Your task to perform on an android device: check android version Image 0: 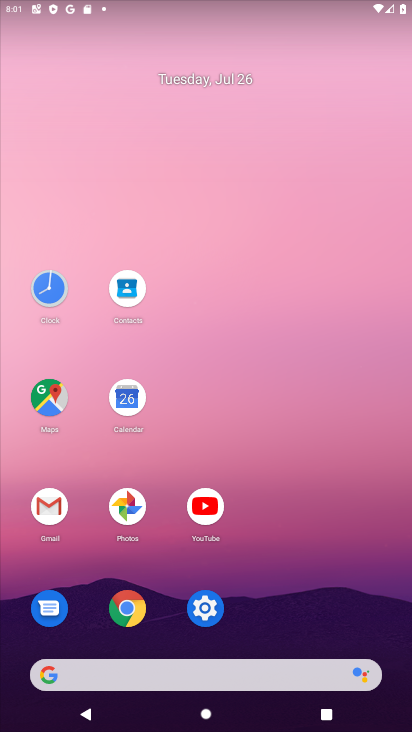
Step 0: click (204, 609)
Your task to perform on an android device: check android version Image 1: 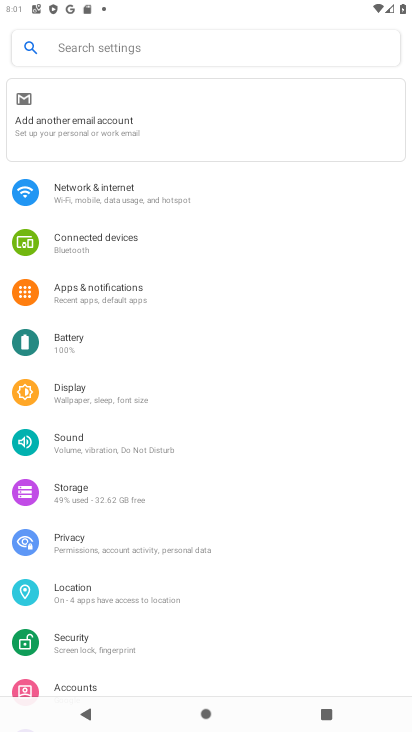
Step 1: drag from (252, 618) to (200, 39)
Your task to perform on an android device: check android version Image 2: 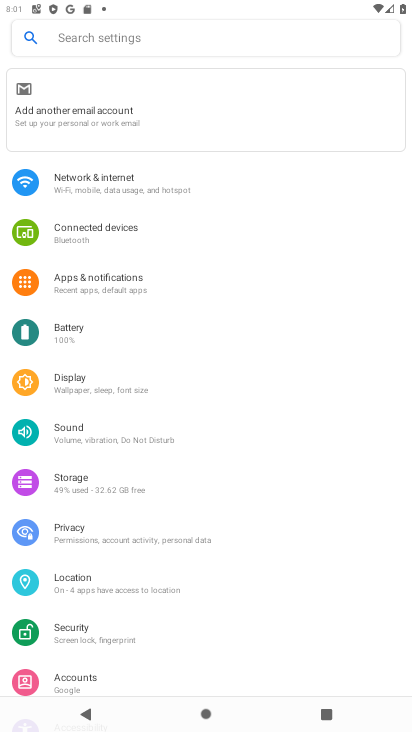
Step 2: drag from (166, 603) to (174, 231)
Your task to perform on an android device: check android version Image 3: 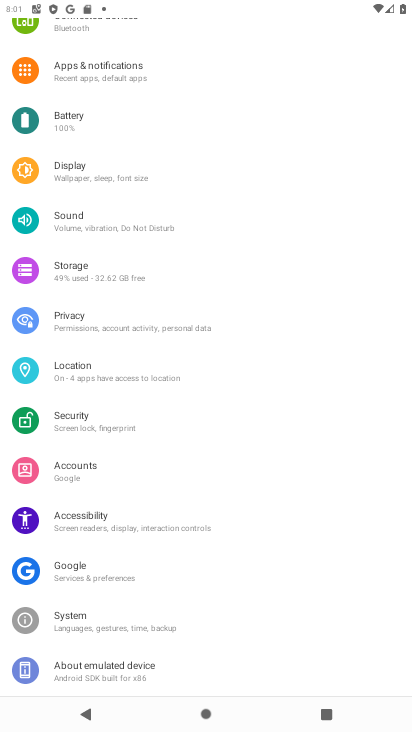
Step 3: click (96, 666)
Your task to perform on an android device: check android version Image 4: 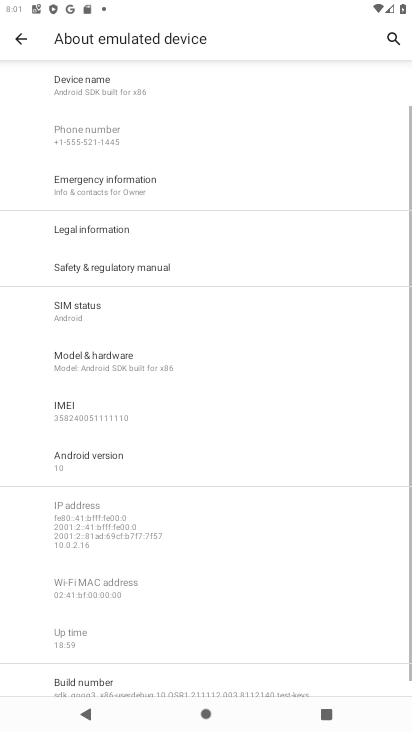
Step 4: task complete